Your task to perform on an android device: Search for beats solo 3 on target.com, select the first entry, and add it to the cart. Image 0: 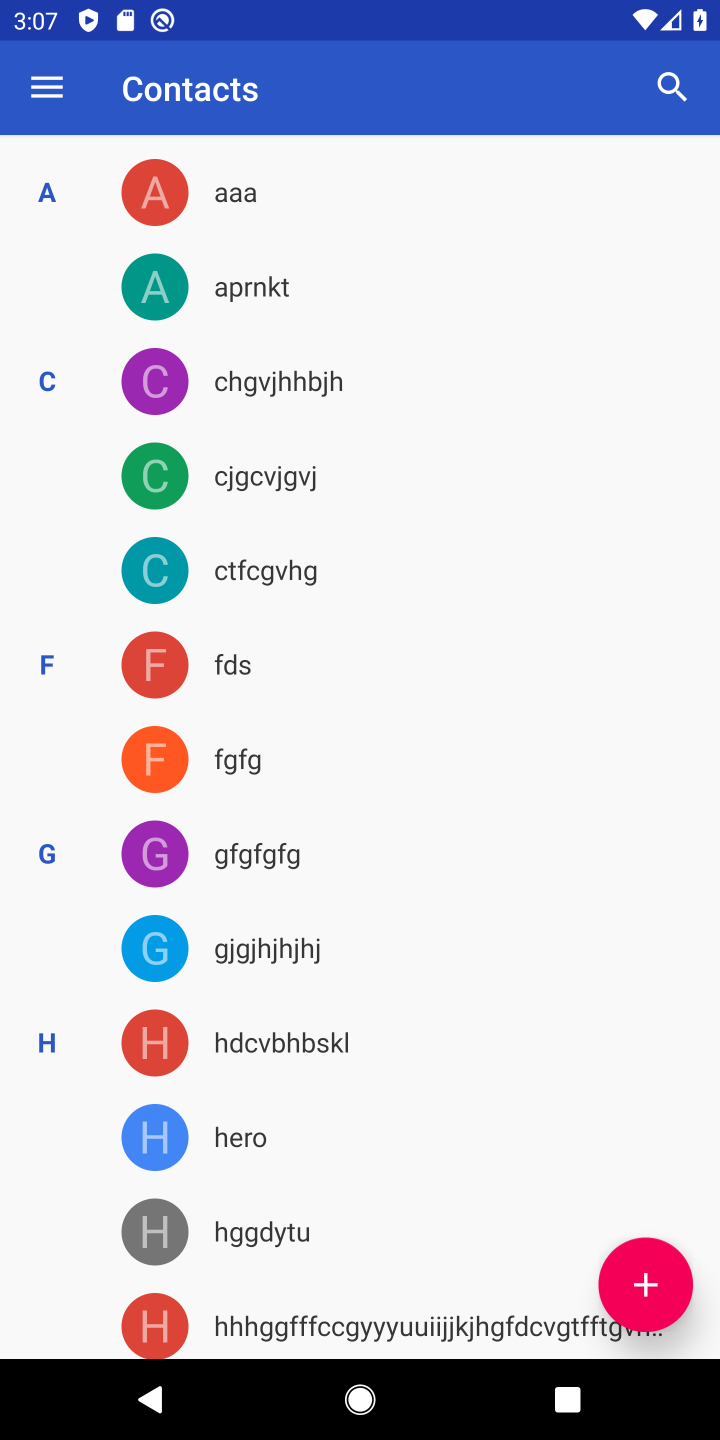
Step 0: press home button
Your task to perform on an android device: Search for beats solo 3 on target.com, select the first entry, and add it to the cart. Image 1: 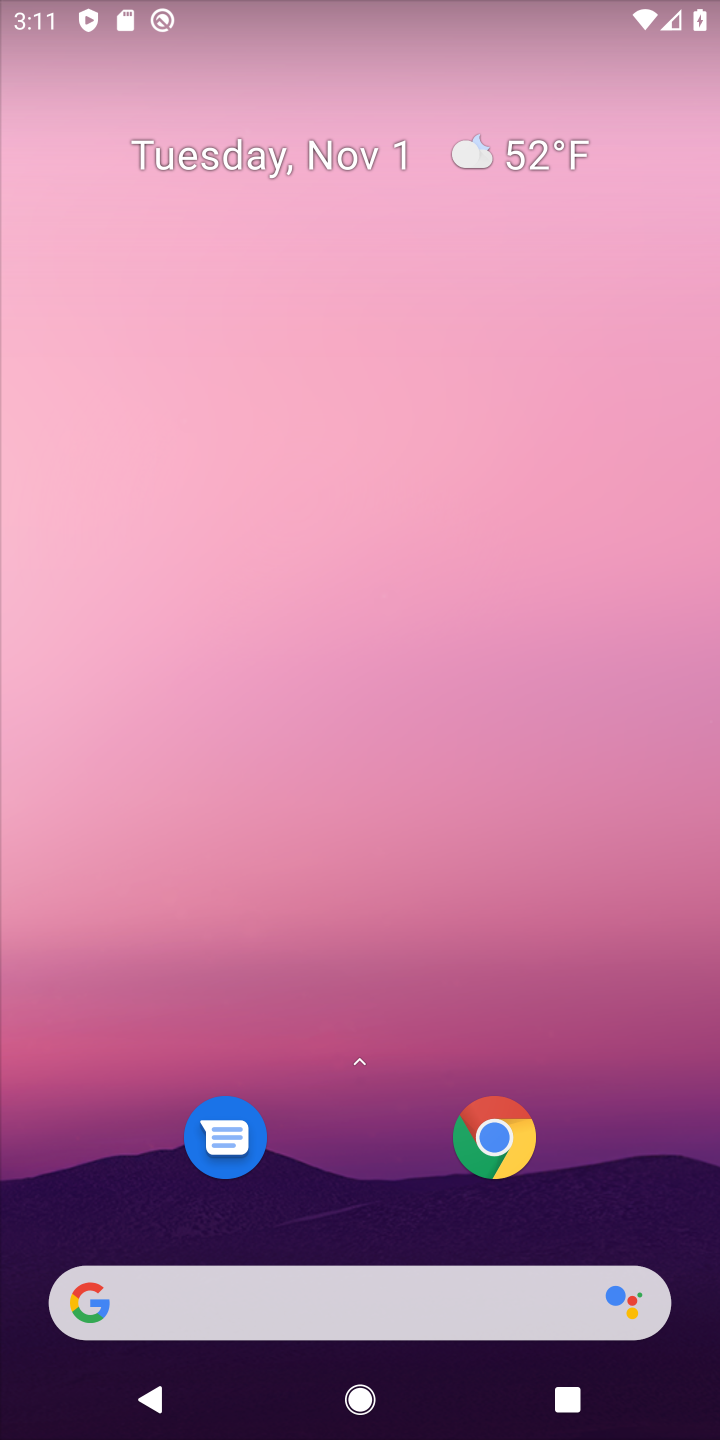
Step 1: task complete